Your task to perform on an android device: create a new album in the google photos Image 0: 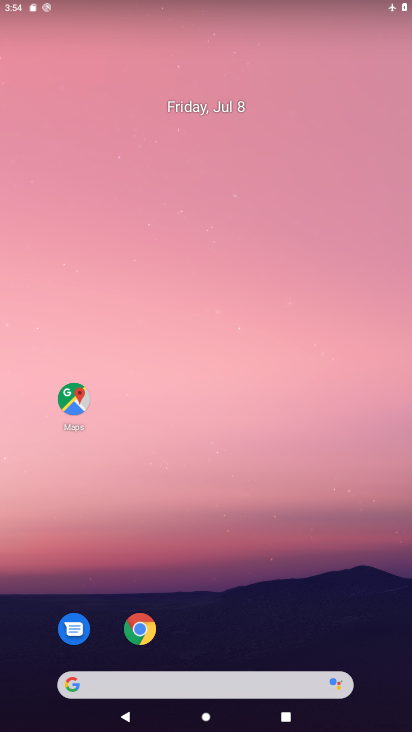
Step 0: drag from (293, 606) to (233, 214)
Your task to perform on an android device: create a new album in the google photos Image 1: 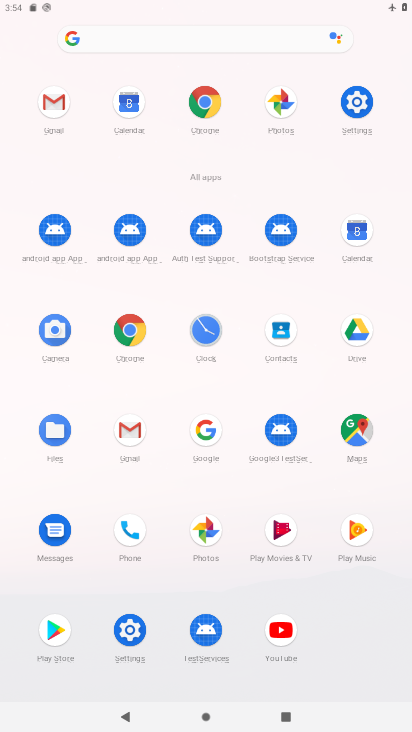
Step 1: click (192, 532)
Your task to perform on an android device: create a new album in the google photos Image 2: 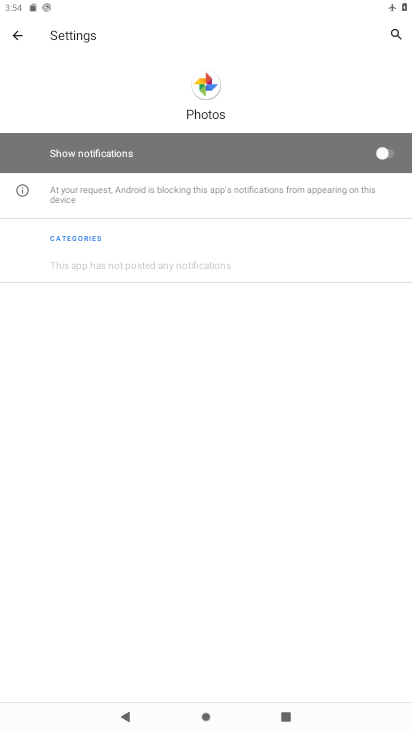
Step 2: click (16, 43)
Your task to perform on an android device: create a new album in the google photos Image 3: 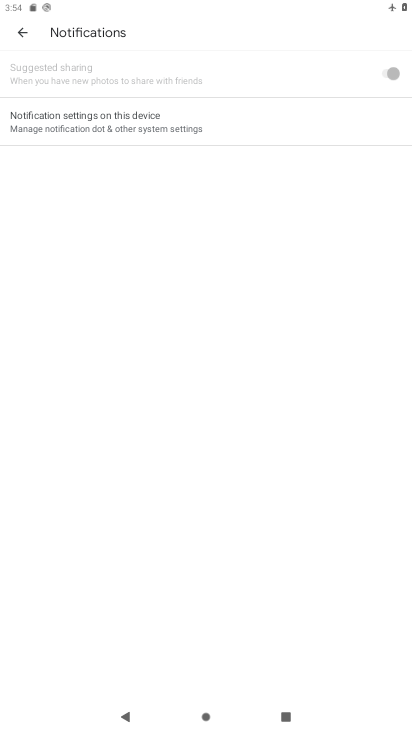
Step 3: click (18, 43)
Your task to perform on an android device: create a new album in the google photos Image 4: 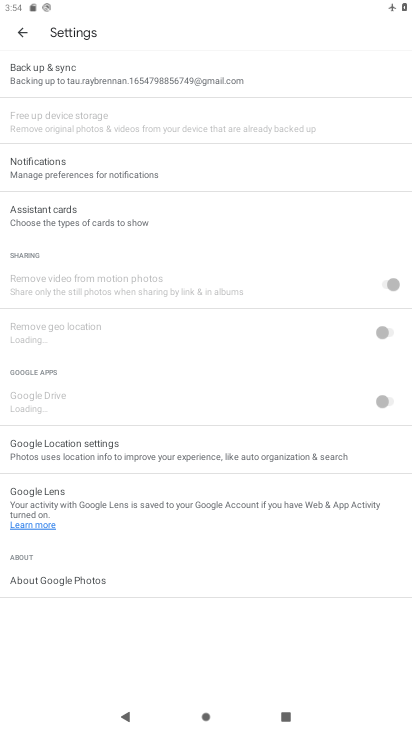
Step 4: click (18, 43)
Your task to perform on an android device: create a new album in the google photos Image 5: 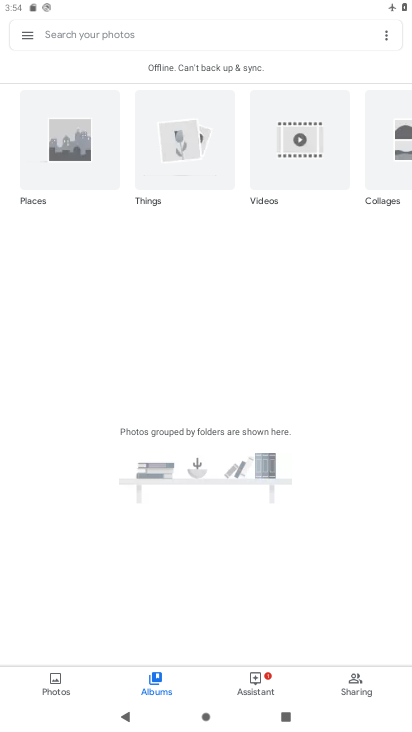
Step 5: task complete